Your task to perform on an android device: Show me productivity apps on the Play Store Image 0: 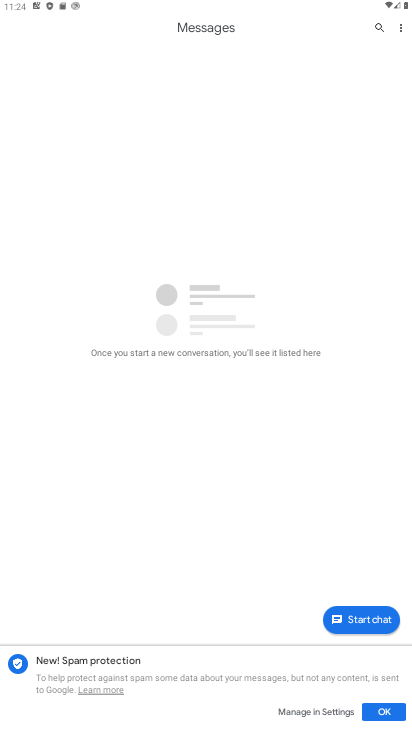
Step 0: press home button
Your task to perform on an android device: Show me productivity apps on the Play Store Image 1: 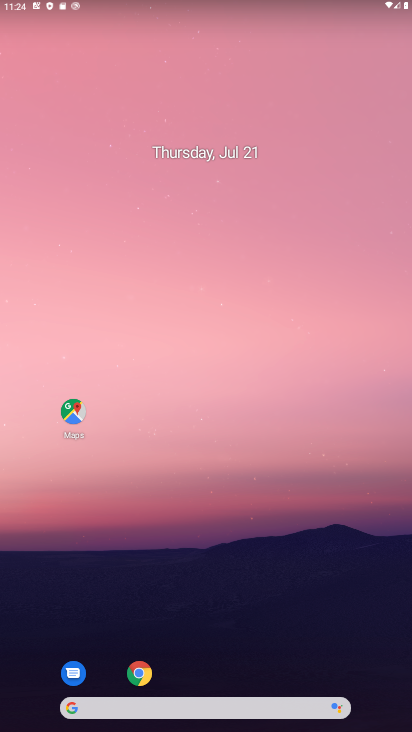
Step 1: drag from (207, 668) to (217, 226)
Your task to perform on an android device: Show me productivity apps on the Play Store Image 2: 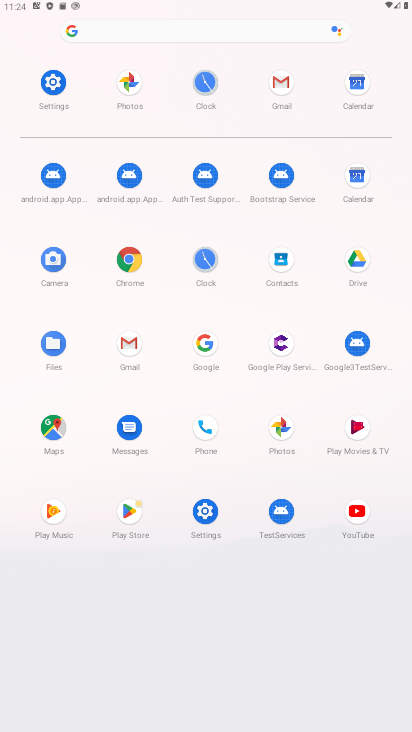
Step 2: click (142, 519)
Your task to perform on an android device: Show me productivity apps on the Play Store Image 3: 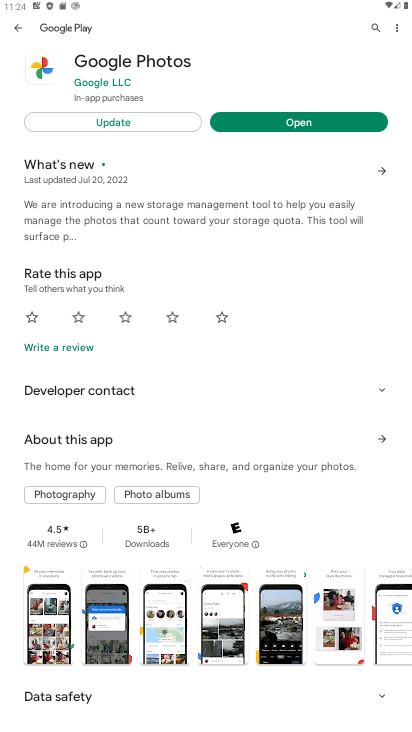
Step 3: click (15, 26)
Your task to perform on an android device: Show me productivity apps on the Play Store Image 4: 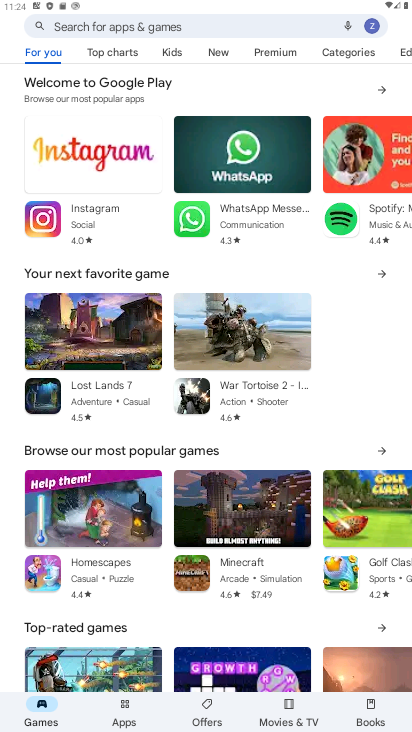
Step 4: click (121, 719)
Your task to perform on an android device: Show me productivity apps on the Play Store Image 5: 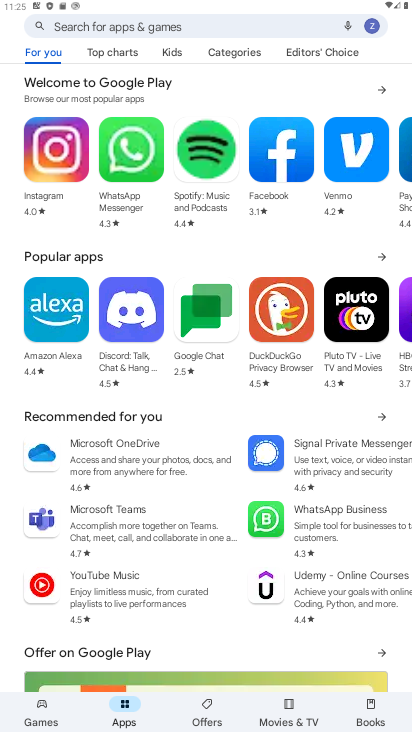
Step 5: click (208, 52)
Your task to perform on an android device: Show me productivity apps on the Play Store Image 6: 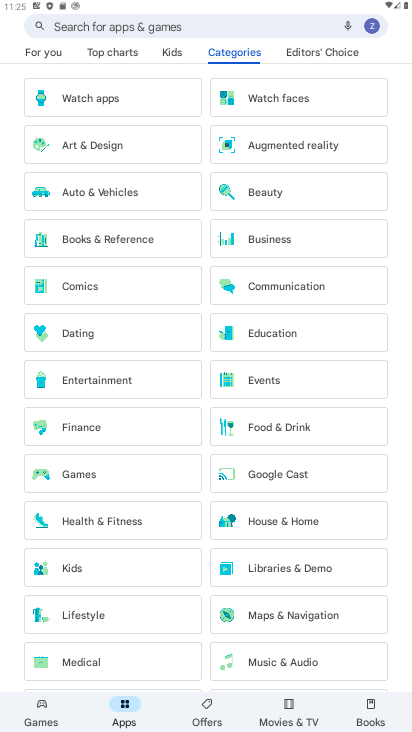
Step 6: drag from (144, 583) to (164, 231)
Your task to perform on an android device: Show me productivity apps on the Play Store Image 7: 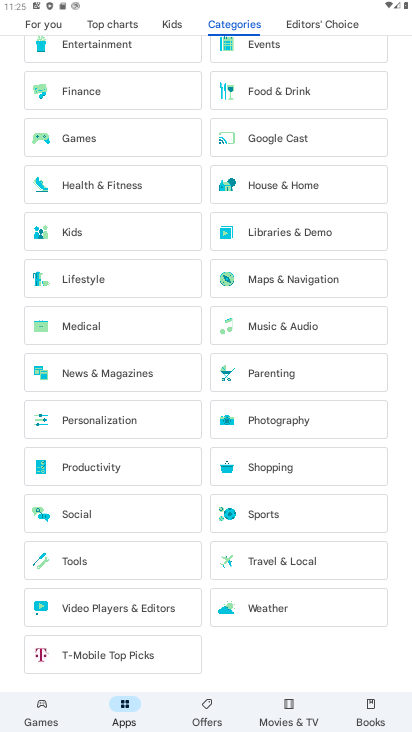
Step 7: click (109, 464)
Your task to perform on an android device: Show me productivity apps on the Play Store Image 8: 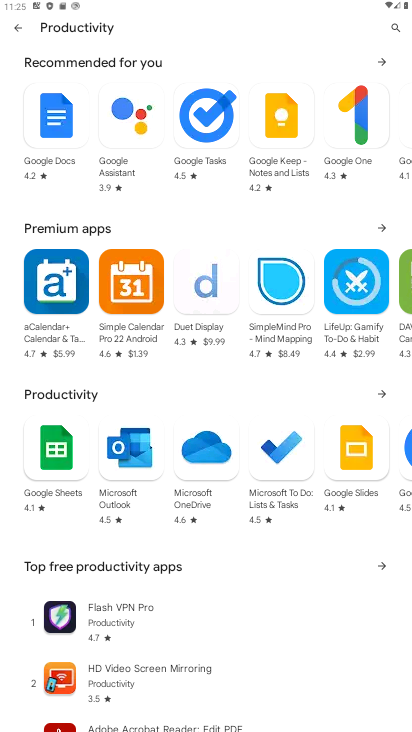
Step 8: task complete